Your task to perform on an android device: toggle priority inbox in the gmail app Image 0: 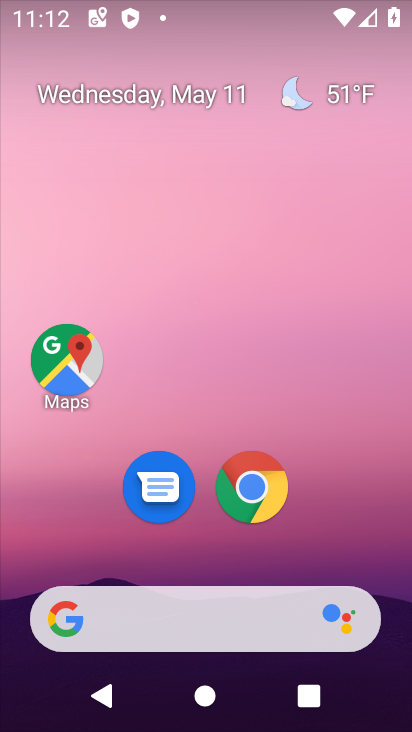
Step 0: drag from (365, 521) to (284, 81)
Your task to perform on an android device: toggle priority inbox in the gmail app Image 1: 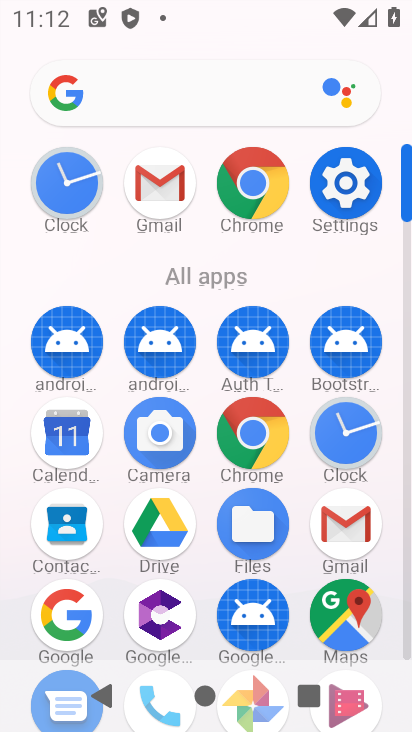
Step 1: click (151, 192)
Your task to perform on an android device: toggle priority inbox in the gmail app Image 2: 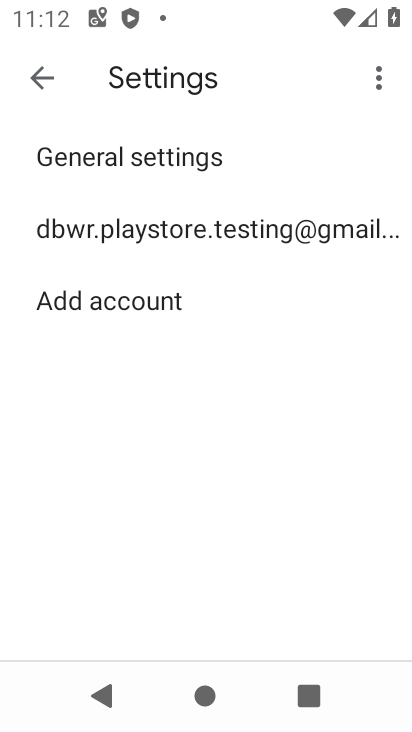
Step 2: click (144, 235)
Your task to perform on an android device: toggle priority inbox in the gmail app Image 3: 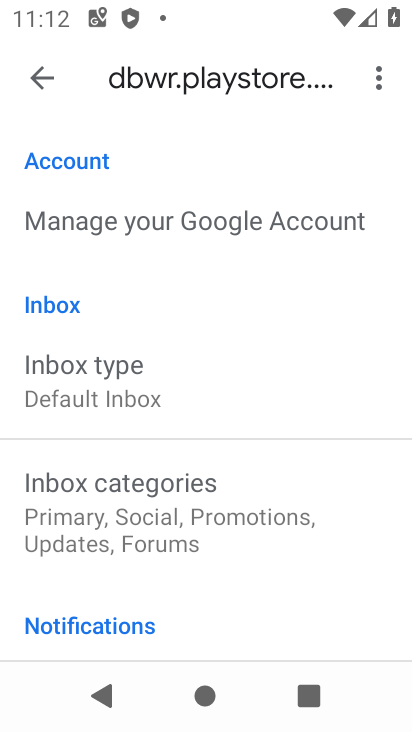
Step 3: drag from (248, 569) to (181, 236)
Your task to perform on an android device: toggle priority inbox in the gmail app Image 4: 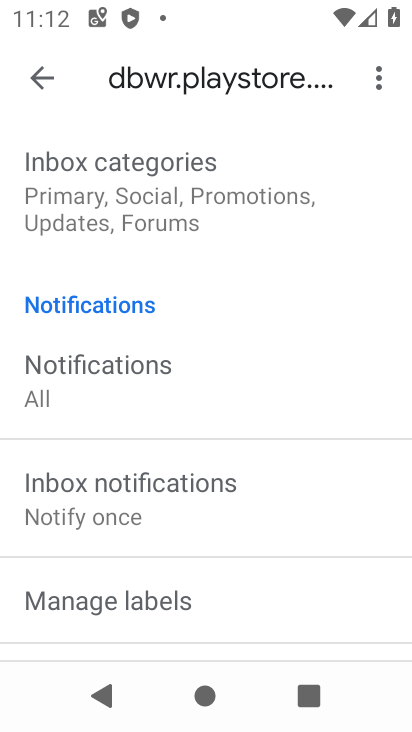
Step 4: drag from (183, 248) to (198, 472)
Your task to perform on an android device: toggle priority inbox in the gmail app Image 5: 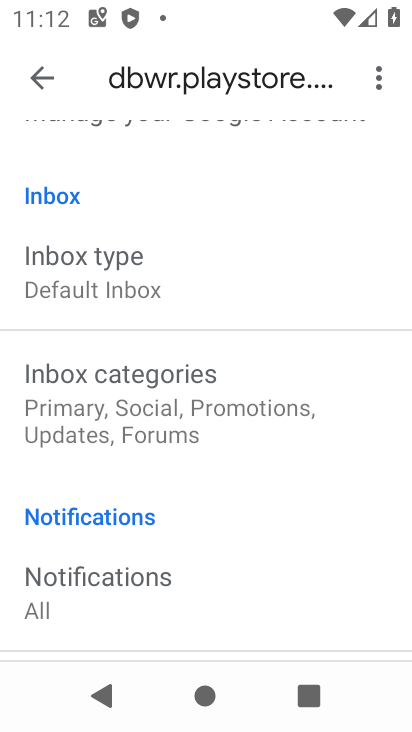
Step 5: click (100, 267)
Your task to perform on an android device: toggle priority inbox in the gmail app Image 6: 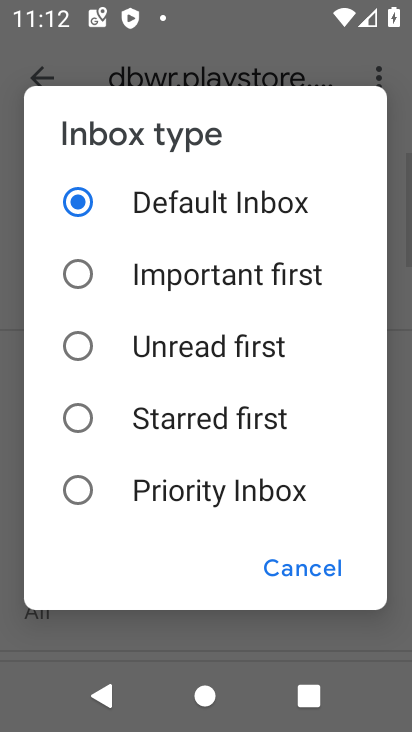
Step 6: click (163, 491)
Your task to perform on an android device: toggle priority inbox in the gmail app Image 7: 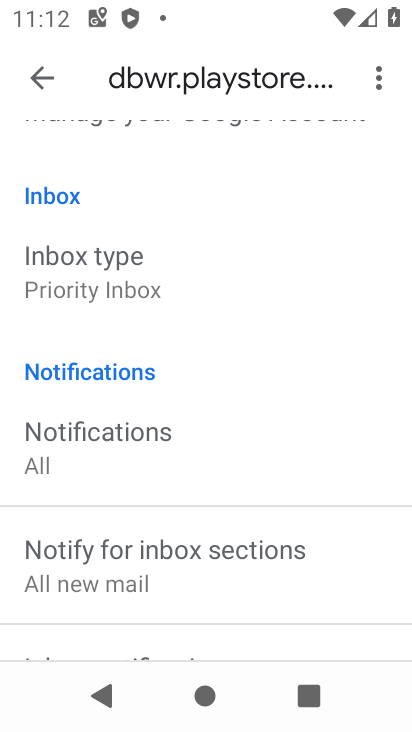
Step 7: task complete